Your task to perform on an android device: clear history in the chrome app Image 0: 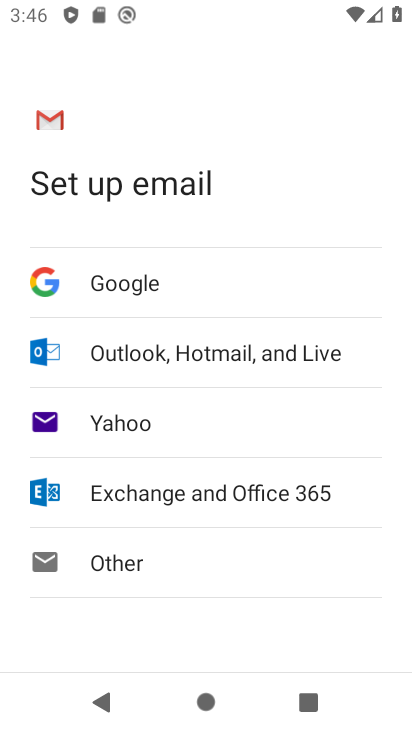
Step 0: press home button
Your task to perform on an android device: clear history in the chrome app Image 1: 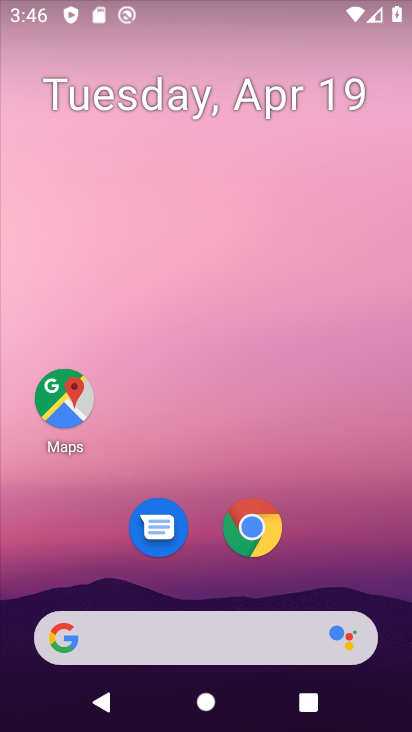
Step 1: click (257, 529)
Your task to perform on an android device: clear history in the chrome app Image 2: 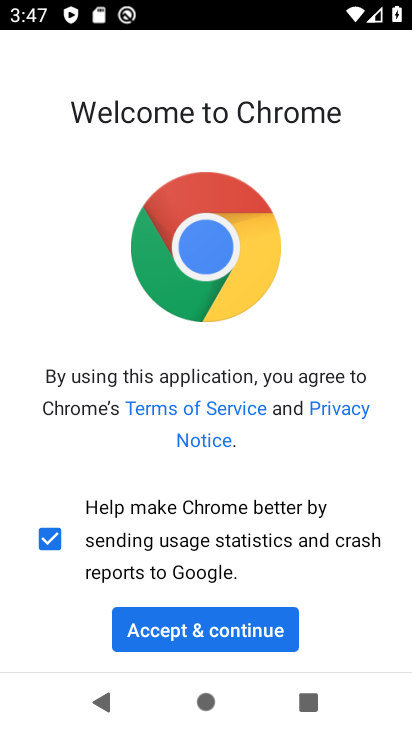
Step 2: click (210, 620)
Your task to perform on an android device: clear history in the chrome app Image 3: 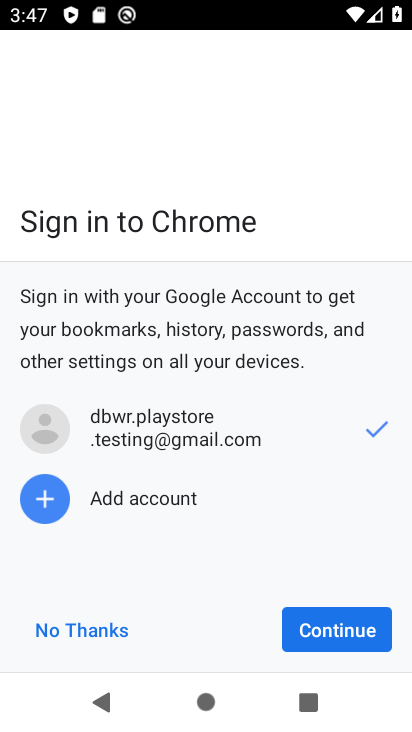
Step 3: click (336, 636)
Your task to perform on an android device: clear history in the chrome app Image 4: 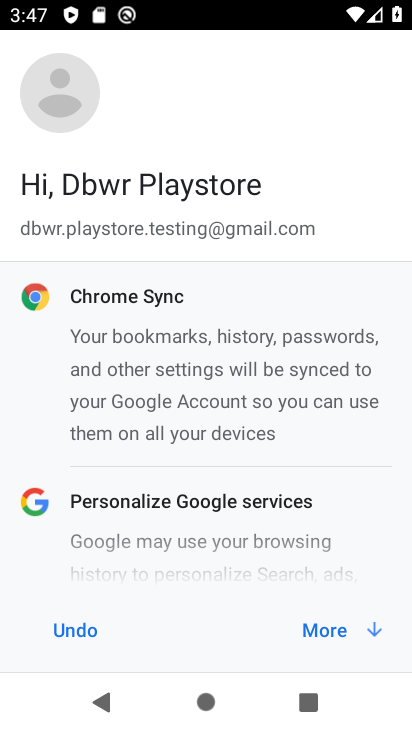
Step 4: click (336, 636)
Your task to perform on an android device: clear history in the chrome app Image 5: 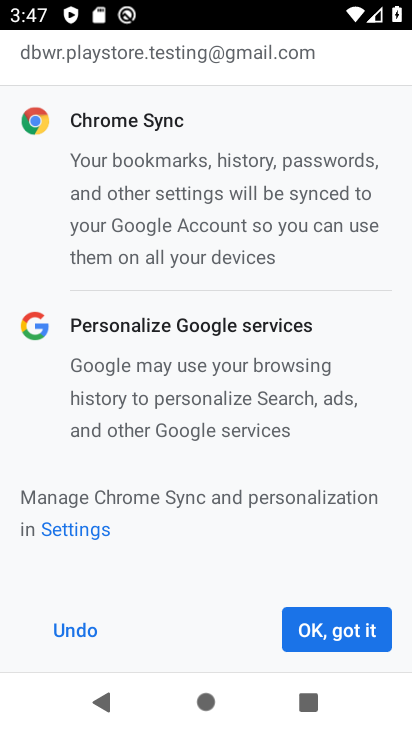
Step 5: click (336, 636)
Your task to perform on an android device: clear history in the chrome app Image 6: 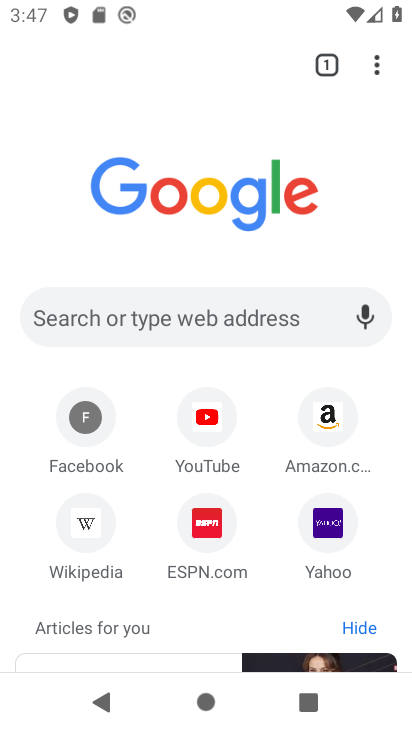
Step 6: click (373, 69)
Your task to perform on an android device: clear history in the chrome app Image 7: 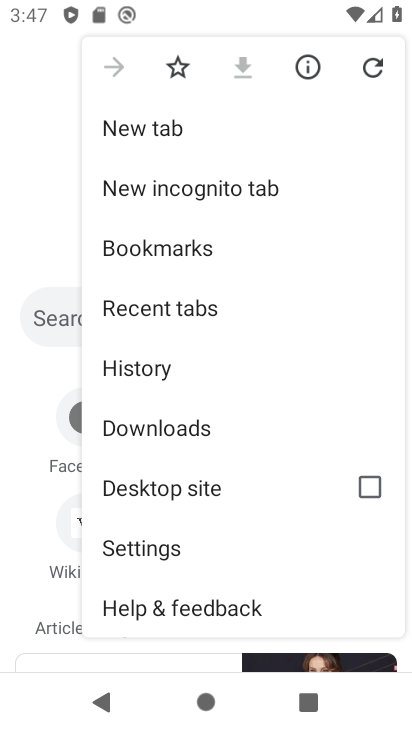
Step 7: click (143, 376)
Your task to perform on an android device: clear history in the chrome app Image 8: 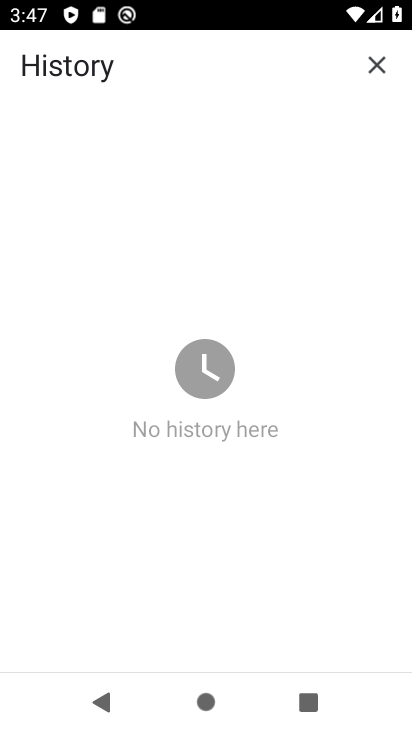
Step 8: task complete